Your task to perform on an android device: turn off sleep mode Image 0: 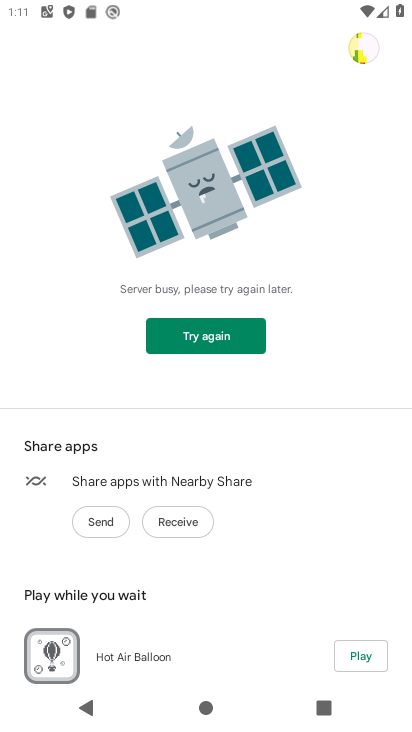
Step 0: press back button
Your task to perform on an android device: turn off sleep mode Image 1: 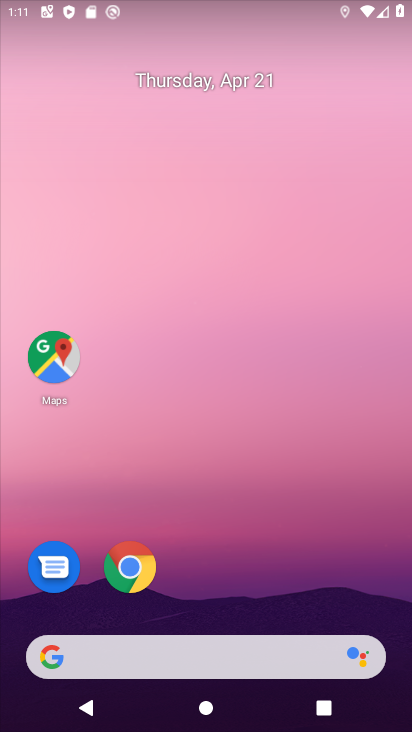
Step 1: drag from (205, 568) to (306, 32)
Your task to perform on an android device: turn off sleep mode Image 2: 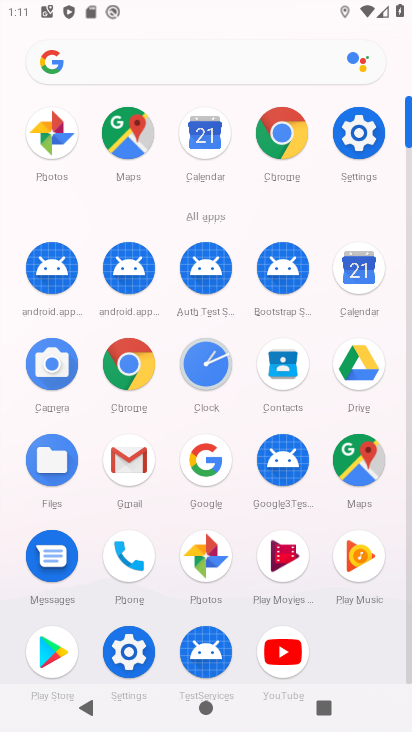
Step 2: click (369, 131)
Your task to perform on an android device: turn off sleep mode Image 3: 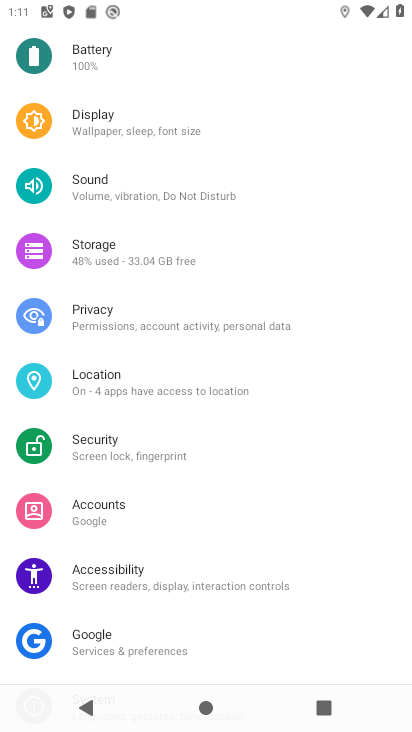
Step 3: drag from (218, 92) to (196, 513)
Your task to perform on an android device: turn off sleep mode Image 4: 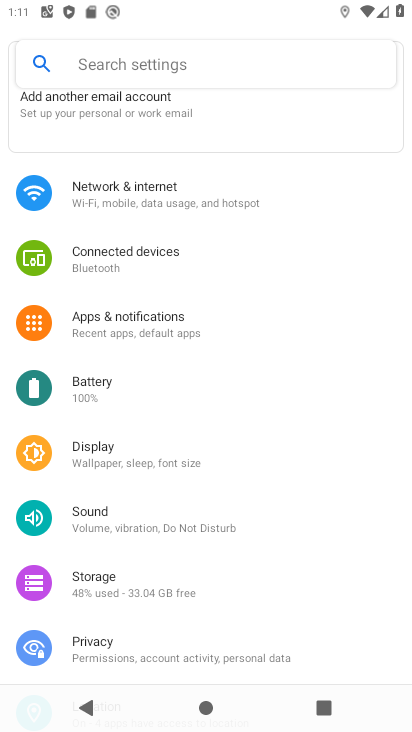
Step 4: click (120, 63)
Your task to perform on an android device: turn off sleep mode Image 5: 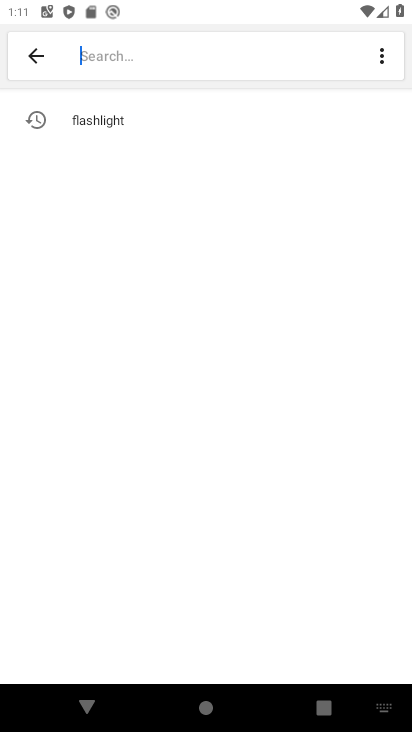
Step 5: type "sleep mode"
Your task to perform on an android device: turn off sleep mode Image 6: 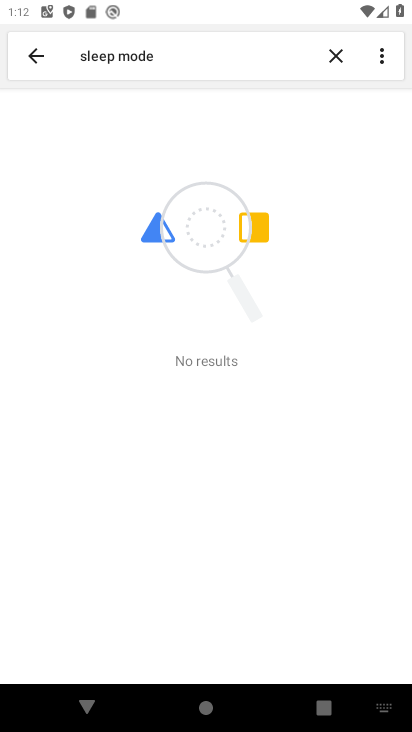
Step 6: task complete